Your task to perform on an android device: Is it going to rain this weekend? Image 0: 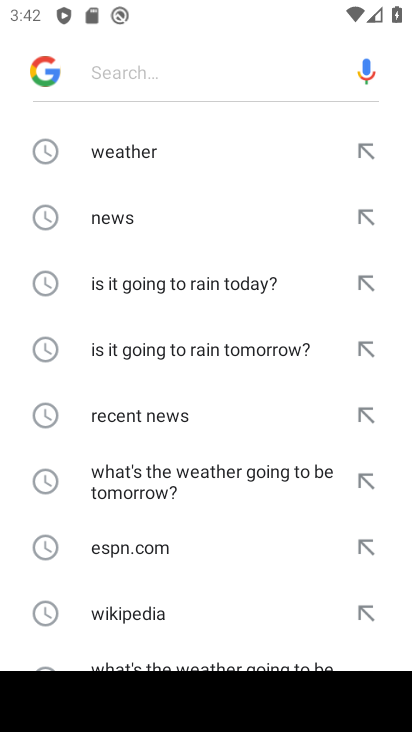
Step 0: click (150, 148)
Your task to perform on an android device: Is it going to rain this weekend? Image 1: 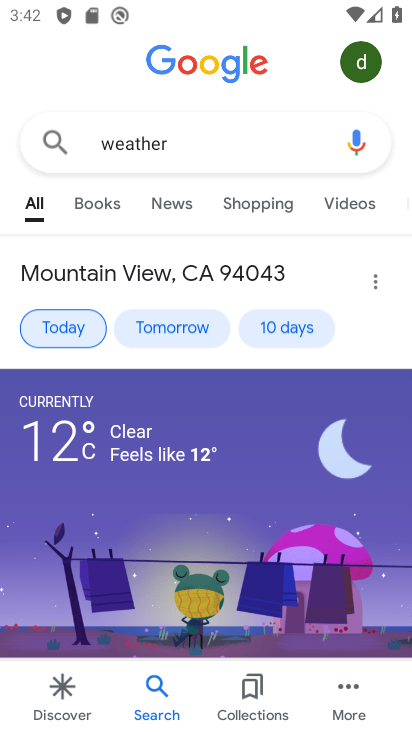
Step 1: click (84, 329)
Your task to perform on an android device: Is it going to rain this weekend? Image 2: 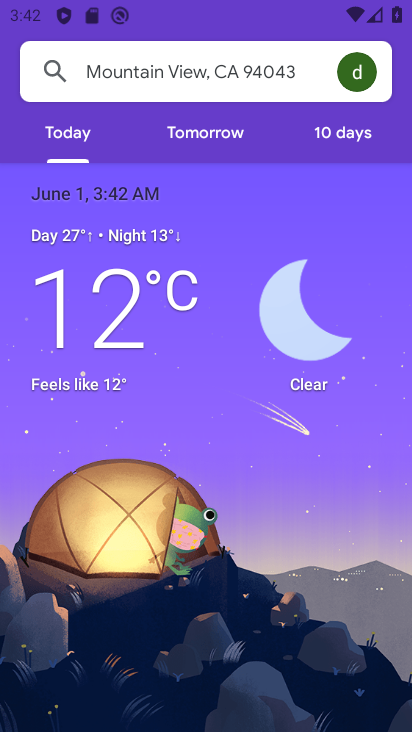
Step 2: click (331, 128)
Your task to perform on an android device: Is it going to rain this weekend? Image 3: 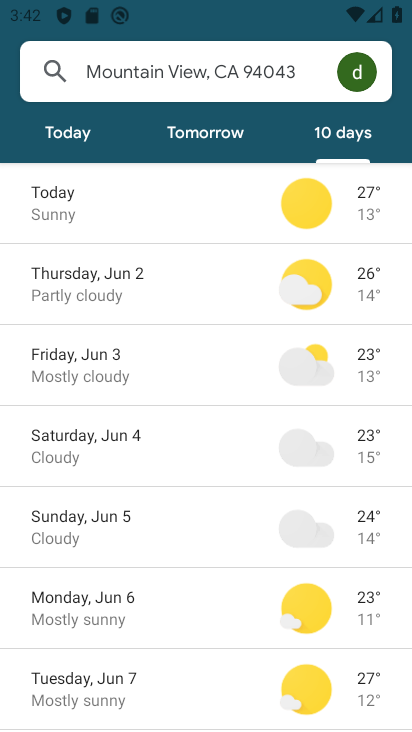
Step 3: click (148, 444)
Your task to perform on an android device: Is it going to rain this weekend? Image 4: 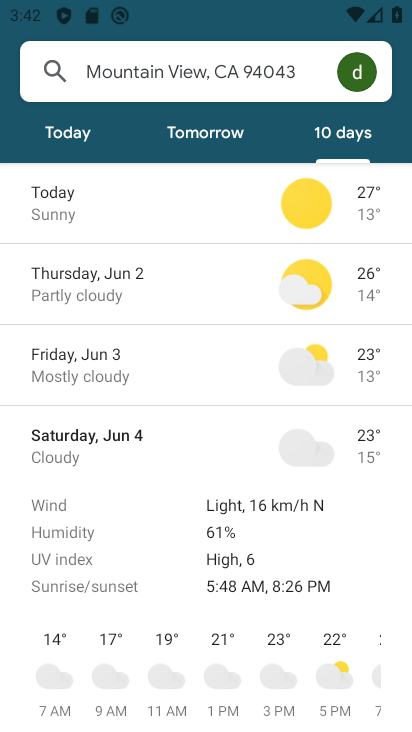
Step 4: task complete